Your task to perform on an android device: create a new album in the google photos Image 0: 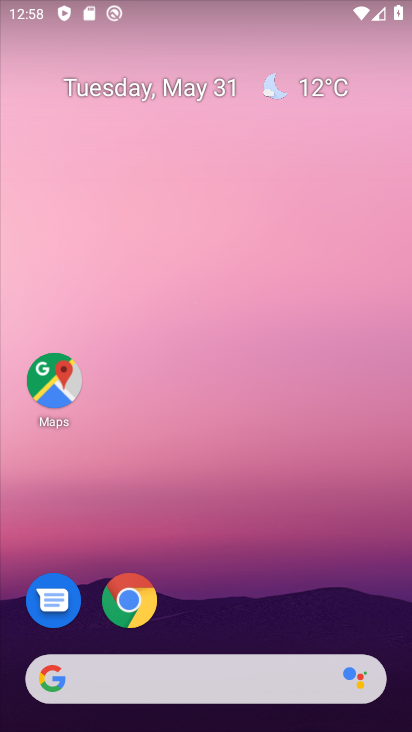
Step 0: drag from (290, 280) to (235, 73)
Your task to perform on an android device: create a new album in the google photos Image 1: 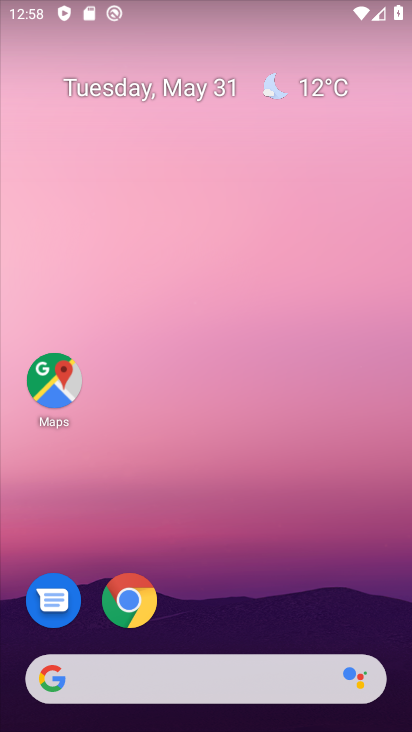
Step 1: drag from (278, 375) to (287, 0)
Your task to perform on an android device: create a new album in the google photos Image 2: 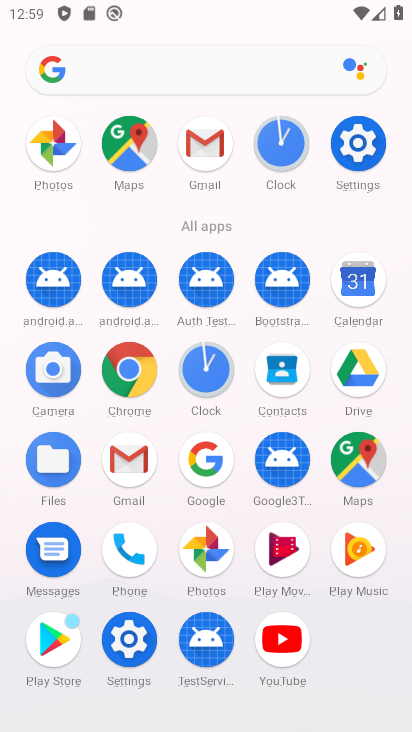
Step 2: click (202, 548)
Your task to perform on an android device: create a new album in the google photos Image 3: 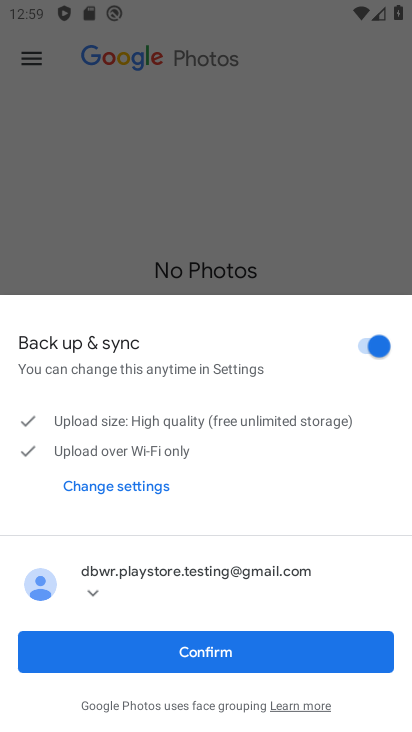
Step 3: click (300, 651)
Your task to perform on an android device: create a new album in the google photos Image 4: 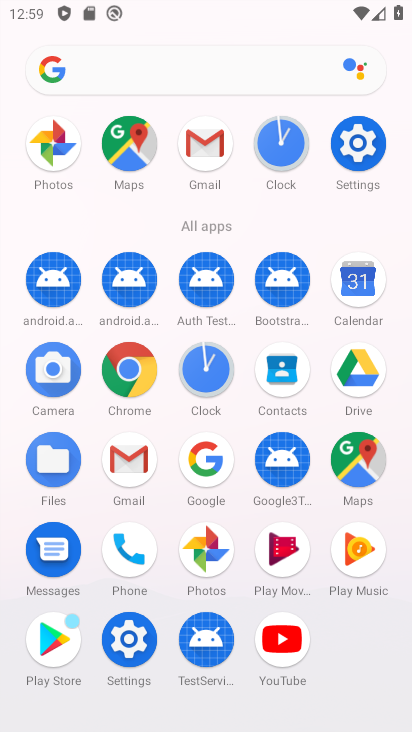
Step 4: click (211, 543)
Your task to perform on an android device: create a new album in the google photos Image 5: 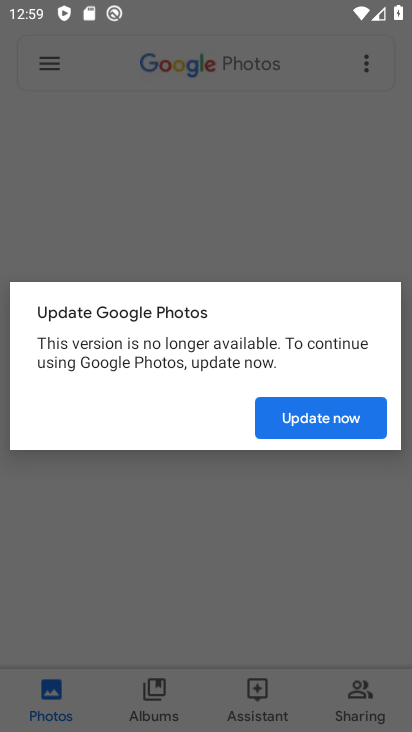
Step 5: click (336, 403)
Your task to perform on an android device: create a new album in the google photos Image 6: 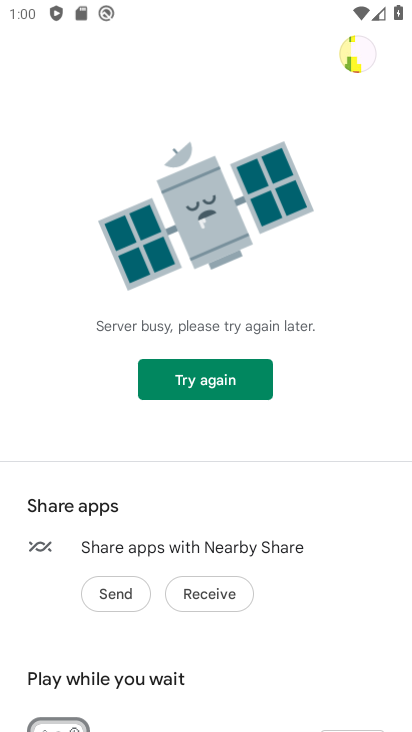
Step 6: task complete